Your task to perform on an android device: turn on notifications settings in the gmail app Image 0: 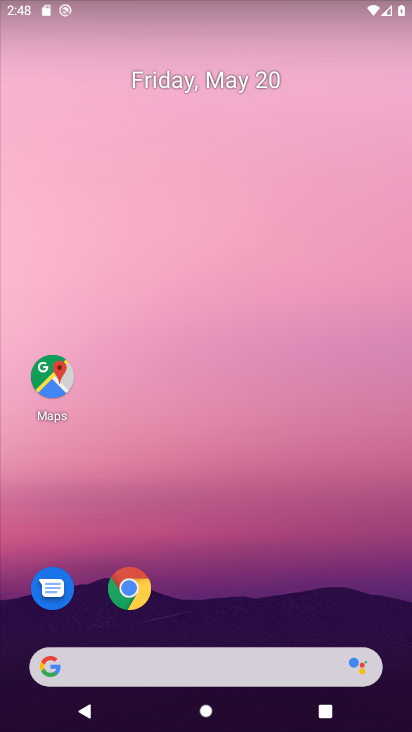
Step 0: drag from (244, 594) to (294, 151)
Your task to perform on an android device: turn on notifications settings in the gmail app Image 1: 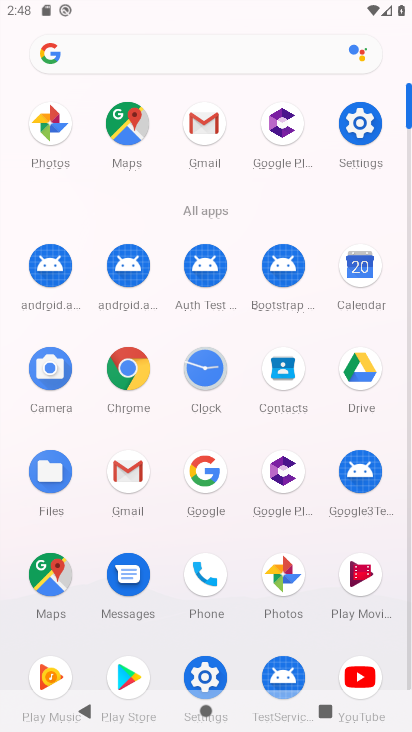
Step 1: click (204, 127)
Your task to perform on an android device: turn on notifications settings in the gmail app Image 2: 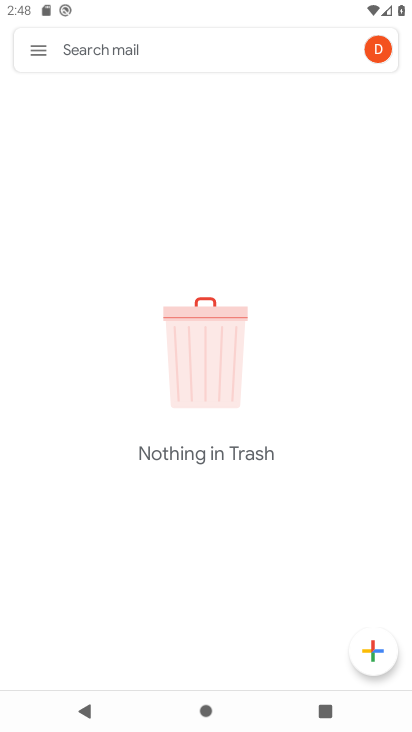
Step 2: click (33, 49)
Your task to perform on an android device: turn on notifications settings in the gmail app Image 3: 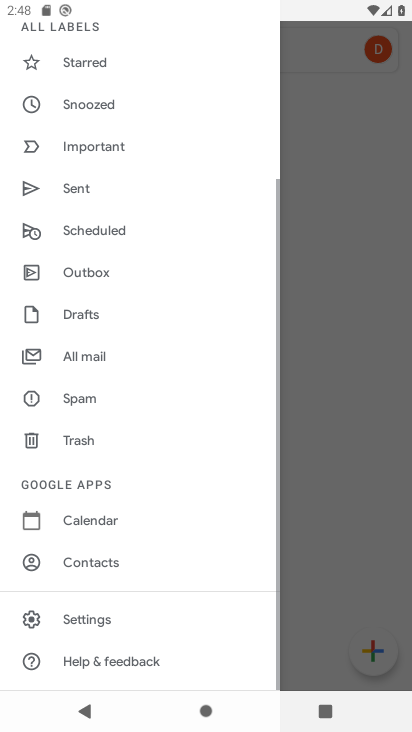
Step 3: drag from (165, 570) to (195, 185)
Your task to perform on an android device: turn on notifications settings in the gmail app Image 4: 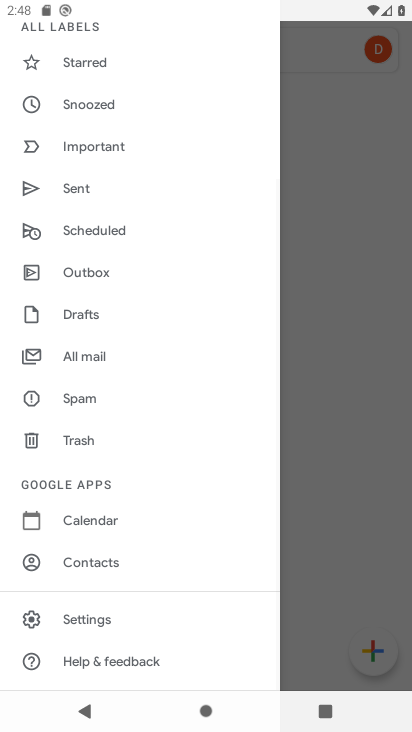
Step 4: click (98, 605)
Your task to perform on an android device: turn on notifications settings in the gmail app Image 5: 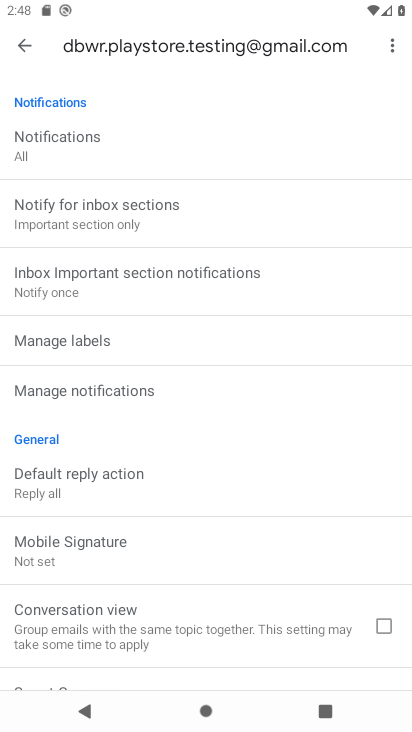
Step 5: drag from (195, 486) to (246, 187)
Your task to perform on an android device: turn on notifications settings in the gmail app Image 6: 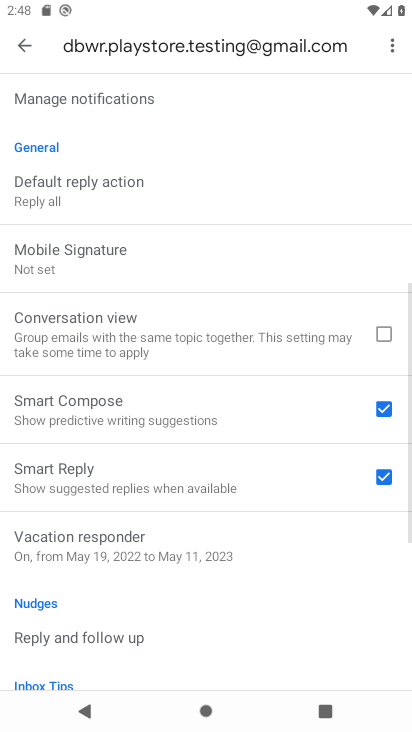
Step 6: drag from (246, 188) to (240, 606)
Your task to perform on an android device: turn on notifications settings in the gmail app Image 7: 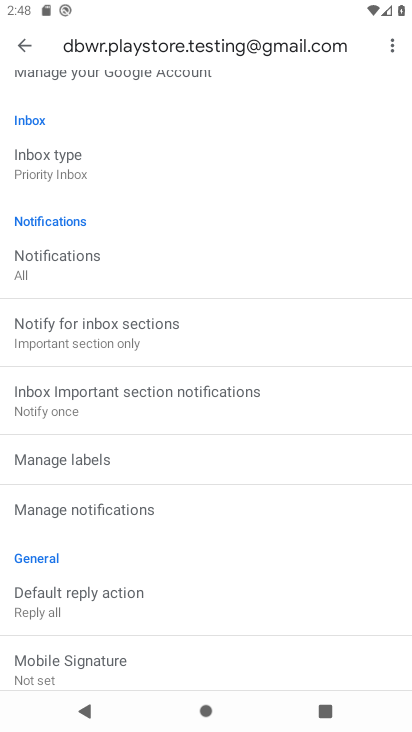
Step 7: click (129, 504)
Your task to perform on an android device: turn on notifications settings in the gmail app Image 8: 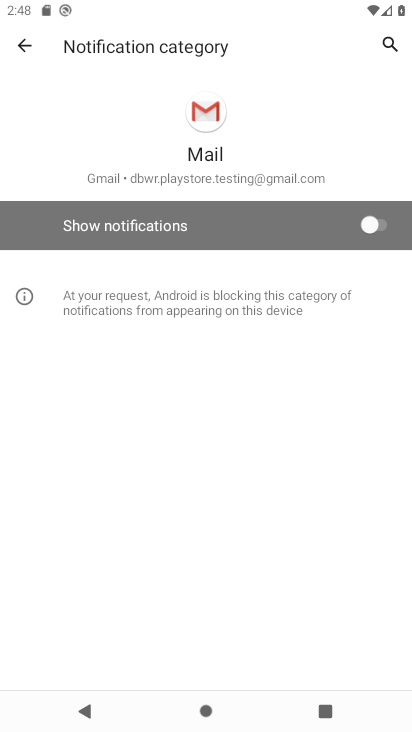
Step 8: click (361, 235)
Your task to perform on an android device: turn on notifications settings in the gmail app Image 9: 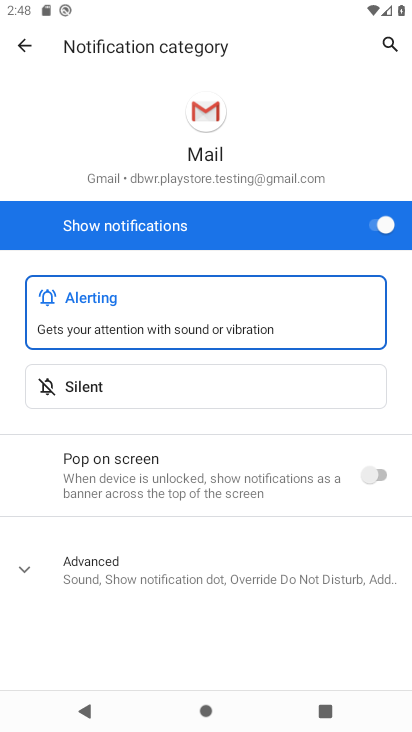
Step 9: task complete